Your task to perform on an android device: change the clock style Image 0: 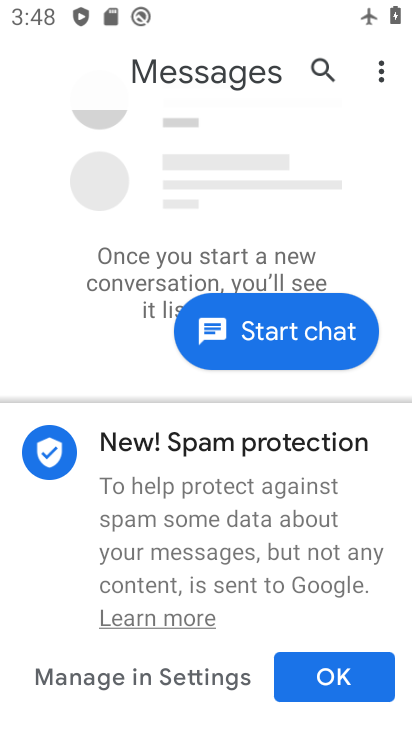
Step 0: press home button
Your task to perform on an android device: change the clock style Image 1: 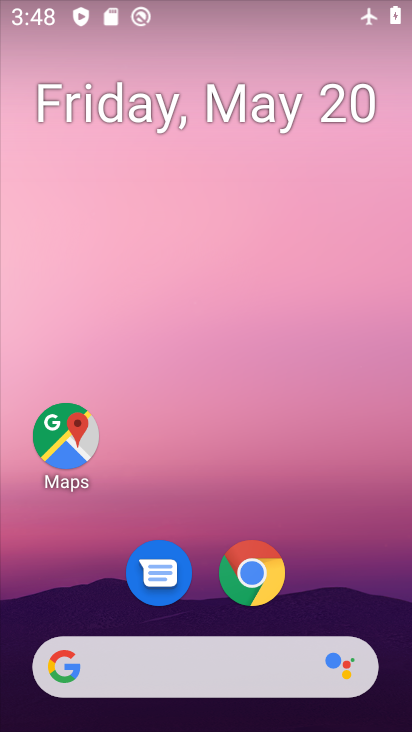
Step 1: drag from (364, 592) to (267, 127)
Your task to perform on an android device: change the clock style Image 2: 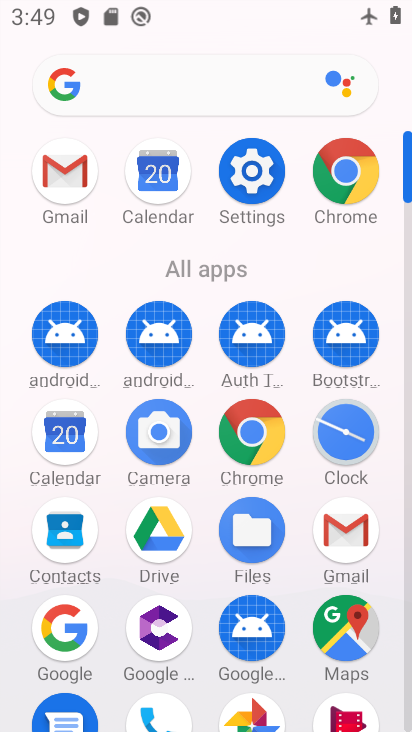
Step 2: click (367, 433)
Your task to perform on an android device: change the clock style Image 3: 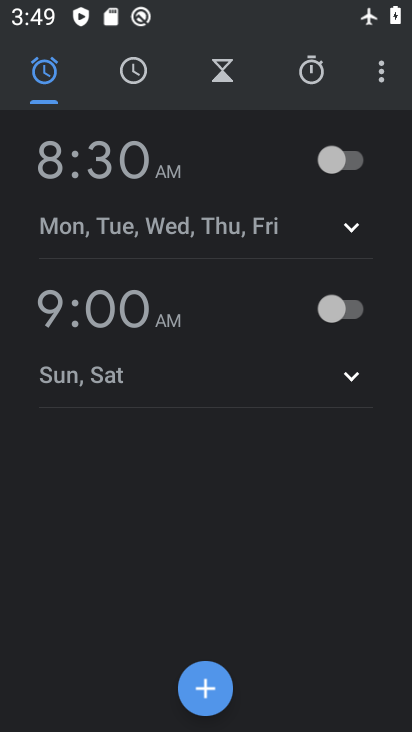
Step 3: click (379, 86)
Your task to perform on an android device: change the clock style Image 4: 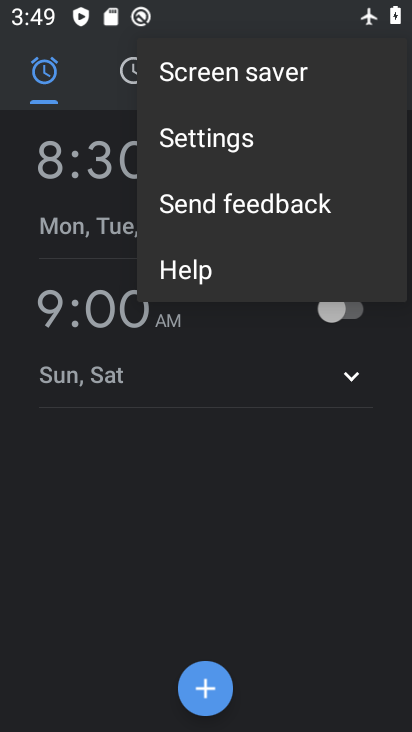
Step 4: click (329, 137)
Your task to perform on an android device: change the clock style Image 5: 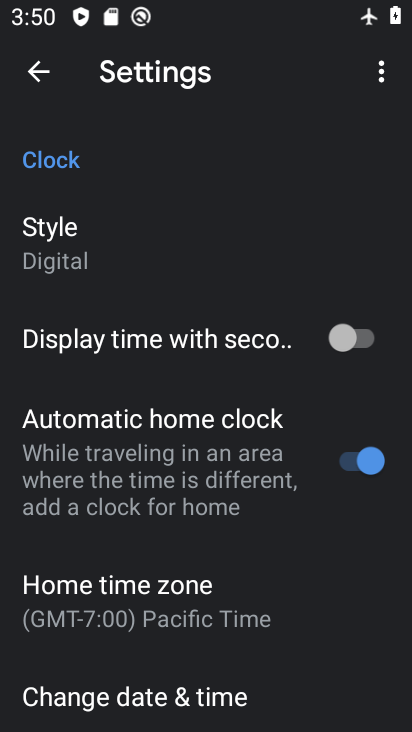
Step 5: click (240, 261)
Your task to perform on an android device: change the clock style Image 6: 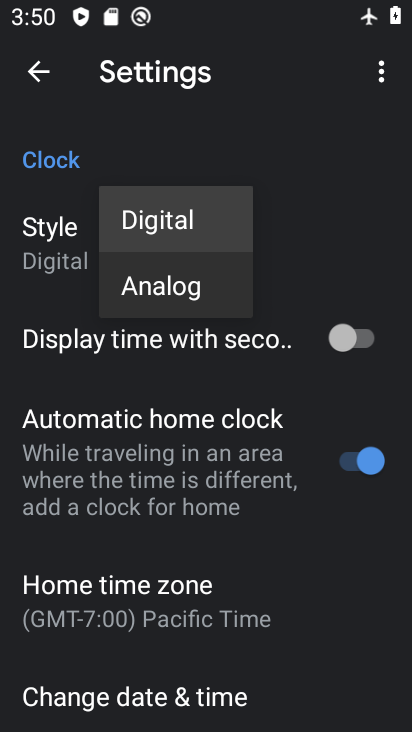
Step 6: click (230, 295)
Your task to perform on an android device: change the clock style Image 7: 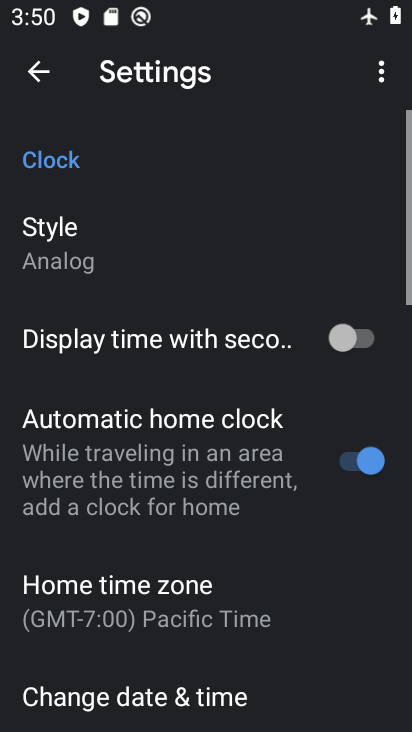
Step 7: task complete